Your task to perform on an android device: open a new tab in the chrome app Image 0: 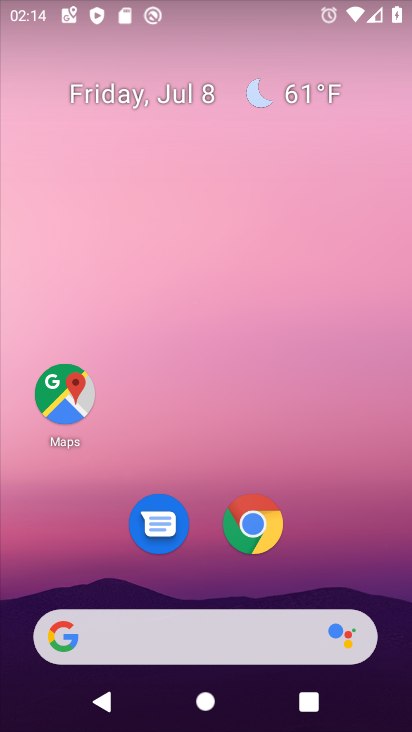
Step 0: click (257, 512)
Your task to perform on an android device: open a new tab in the chrome app Image 1: 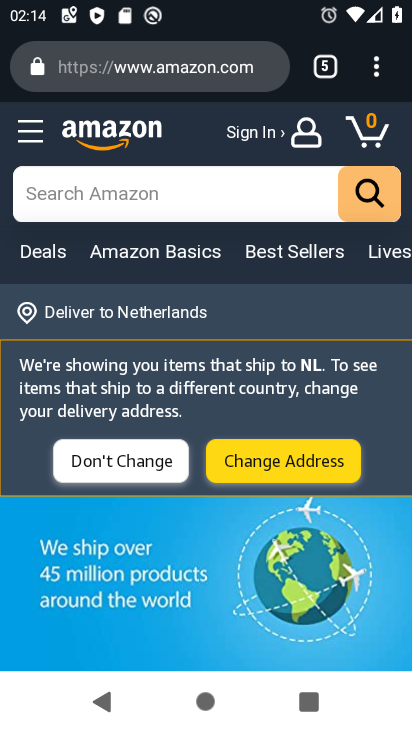
Step 1: click (376, 70)
Your task to perform on an android device: open a new tab in the chrome app Image 2: 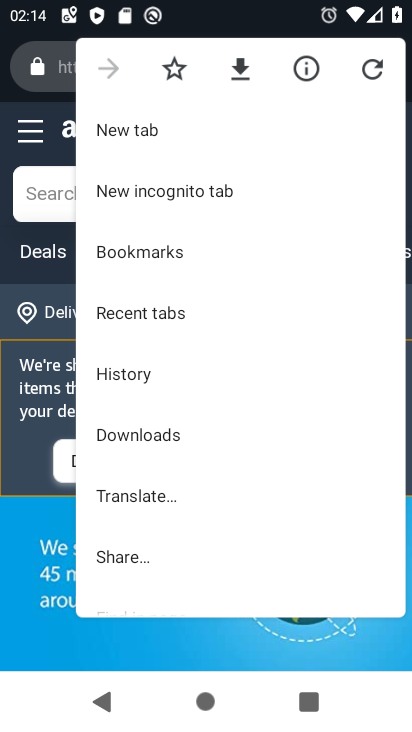
Step 2: click (217, 135)
Your task to perform on an android device: open a new tab in the chrome app Image 3: 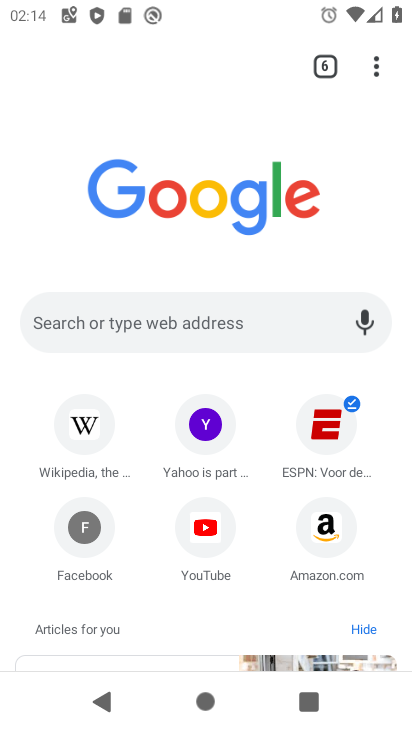
Step 3: task complete